Your task to perform on an android device: Open Amazon Image 0: 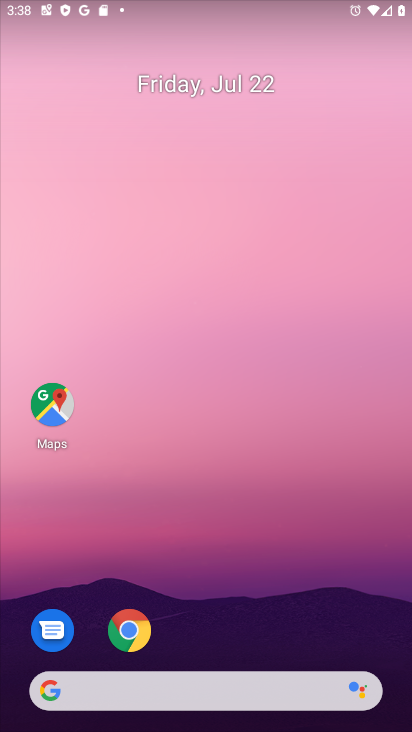
Step 0: click (149, 631)
Your task to perform on an android device: Open Amazon Image 1: 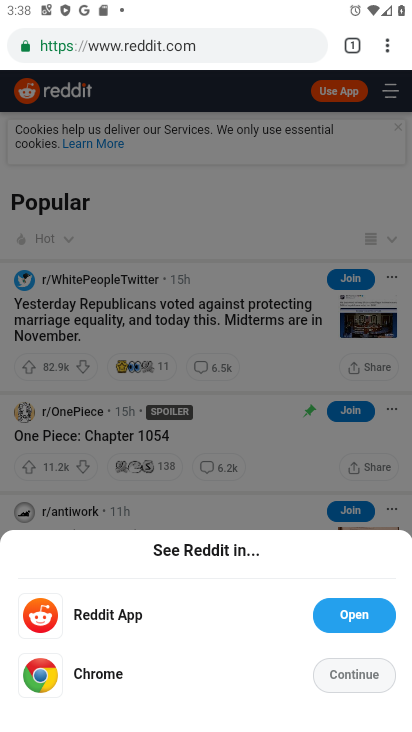
Step 1: click (201, 44)
Your task to perform on an android device: Open Amazon Image 2: 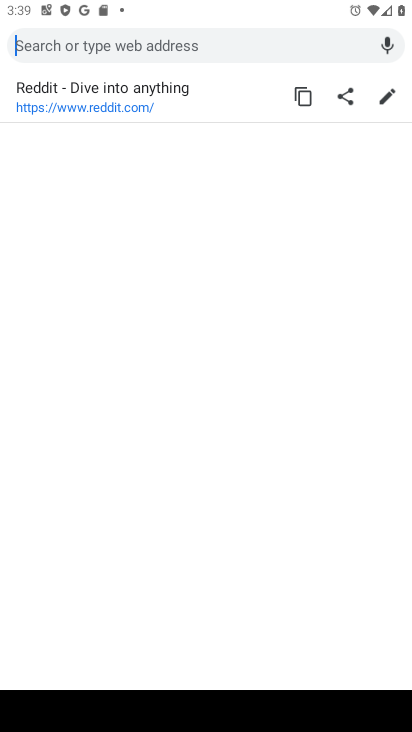
Step 2: type "amazon"
Your task to perform on an android device: Open Amazon Image 3: 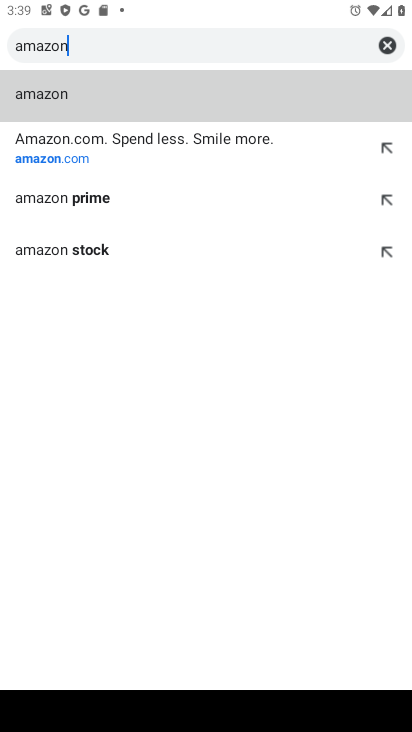
Step 3: click (103, 127)
Your task to perform on an android device: Open Amazon Image 4: 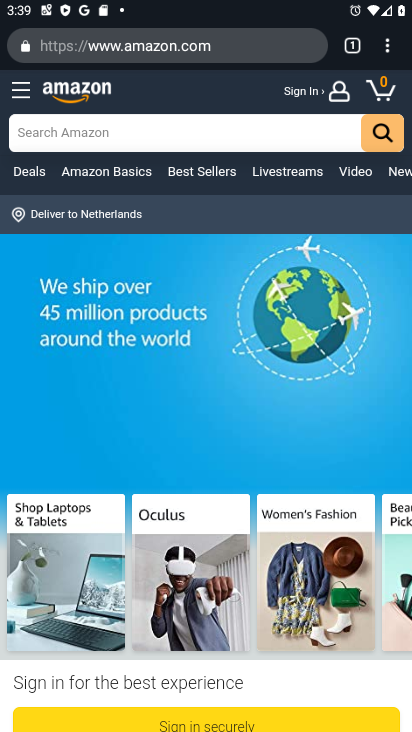
Step 4: task complete